Your task to perform on an android device: Open Maps and search for coffee Image 0: 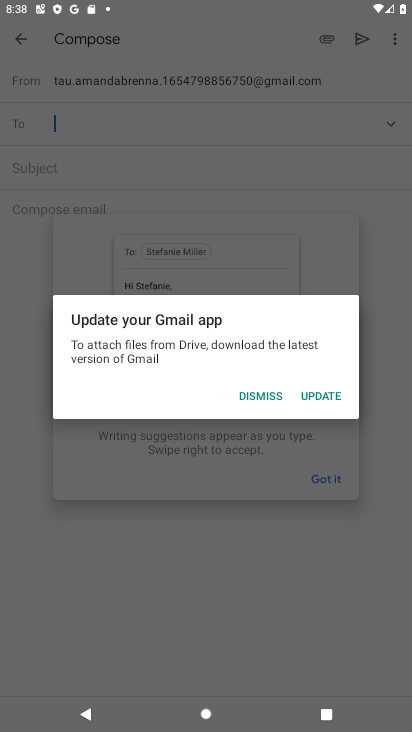
Step 0: click (263, 387)
Your task to perform on an android device: Open Maps and search for coffee Image 1: 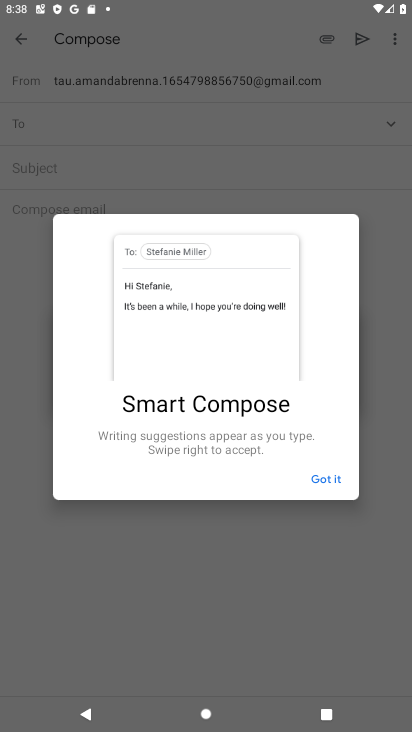
Step 1: press home button
Your task to perform on an android device: Open Maps and search for coffee Image 2: 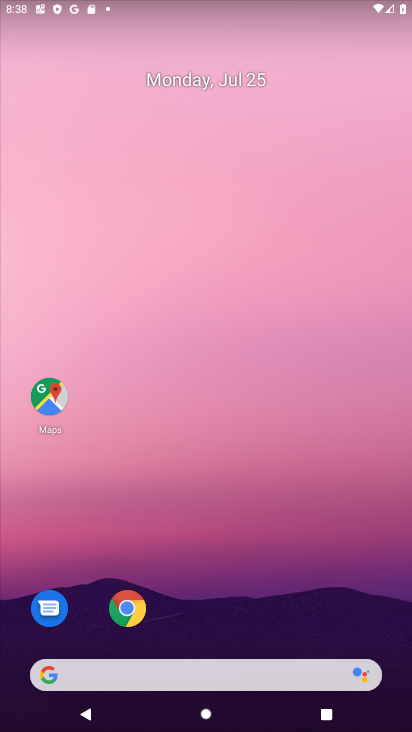
Step 2: drag from (267, 620) to (291, 220)
Your task to perform on an android device: Open Maps and search for coffee Image 3: 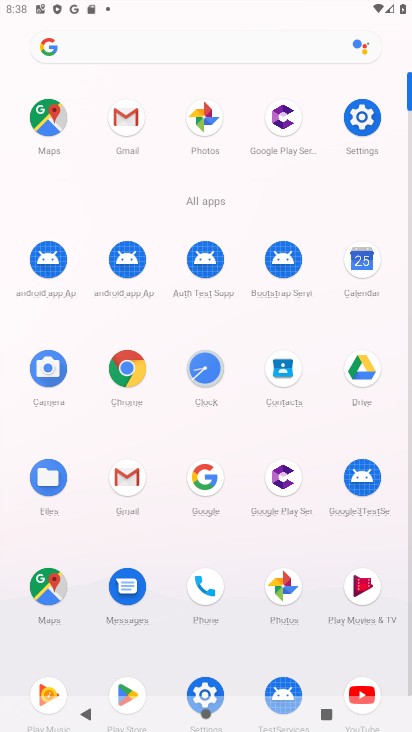
Step 3: click (40, 113)
Your task to perform on an android device: Open Maps and search for coffee Image 4: 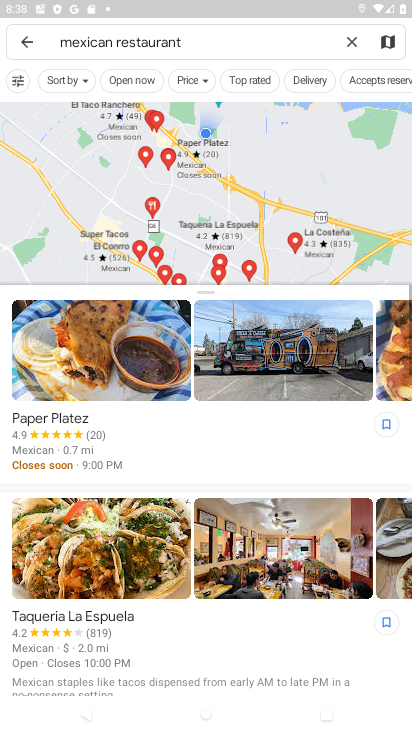
Step 4: click (359, 40)
Your task to perform on an android device: Open Maps and search for coffee Image 5: 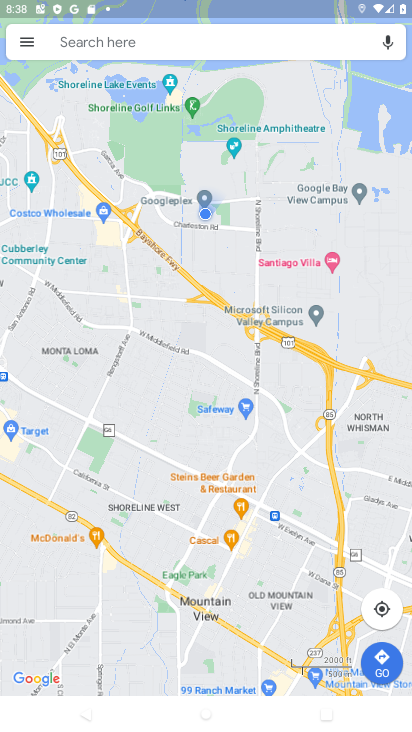
Step 5: click (182, 29)
Your task to perform on an android device: Open Maps and search for coffee Image 6: 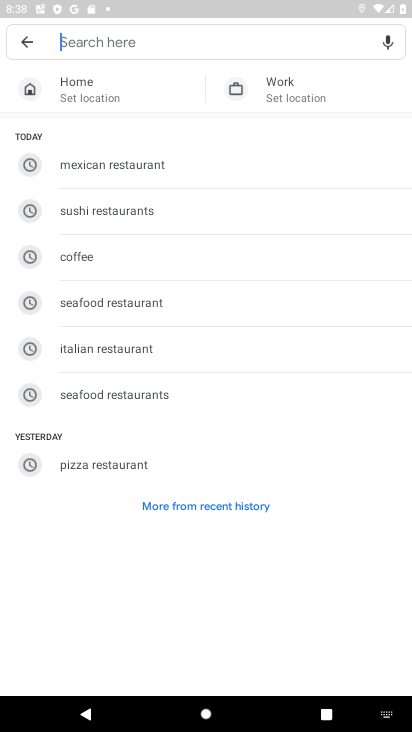
Step 6: click (116, 251)
Your task to perform on an android device: Open Maps and search for coffee Image 7: 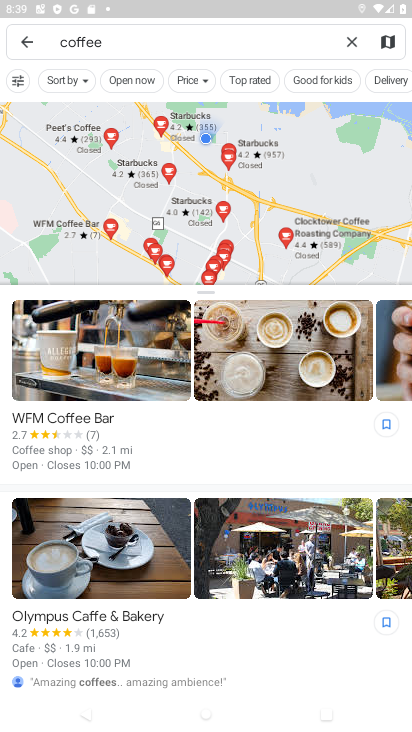
Step 7: task complete